Your task to perform on an android device: open a bookmark in the chrome app Image 0: 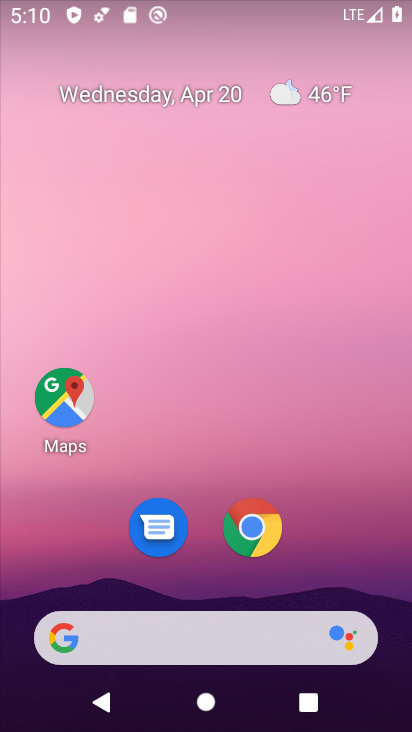
Step 0: click (260, 527)
Your task to perform on an android device: open a bookmark in the chrome app Image 1: 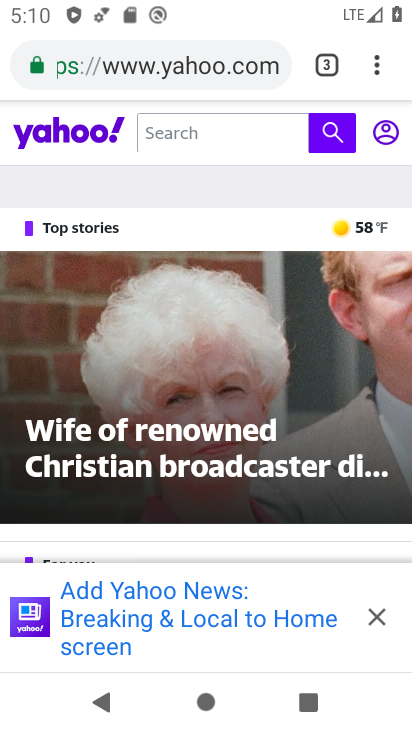
Step 1: click (368, 67)
Your task to perform on an android device: open a bookmark in the chrome app Image 2: 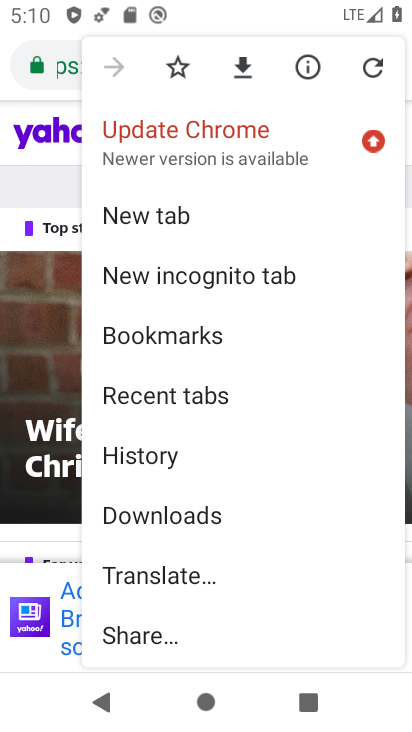
Step 2: click (147, 340)
Your task to perform on an android device: open a bookmark in the chrome app Image 3: 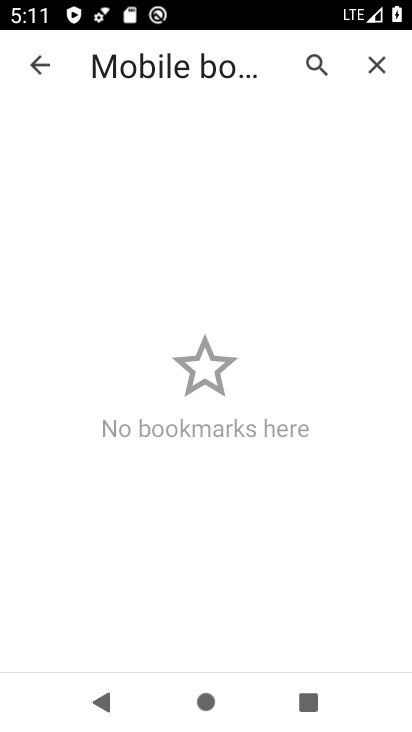
Step 3: task complete